Your task to perform on an android device: toggle notifications settings in the gmail app Image 0: 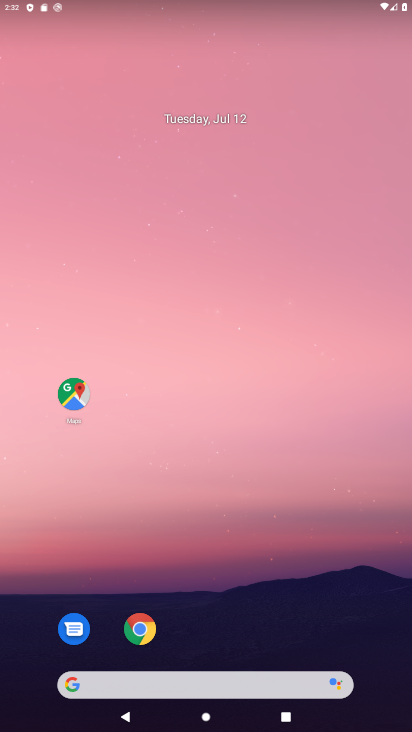
Step 0: drag from (237, 688) to (263, 105)
Your task to perform on an android device: toggle notifications settings in the gmail app Image 1: 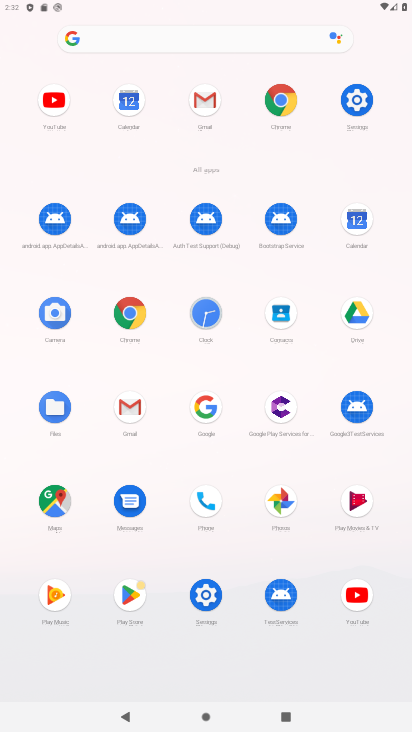
Step 1: click (204, 99)
Your task to perform on an android device: toggle notifications settings in the gmail app Image 2: 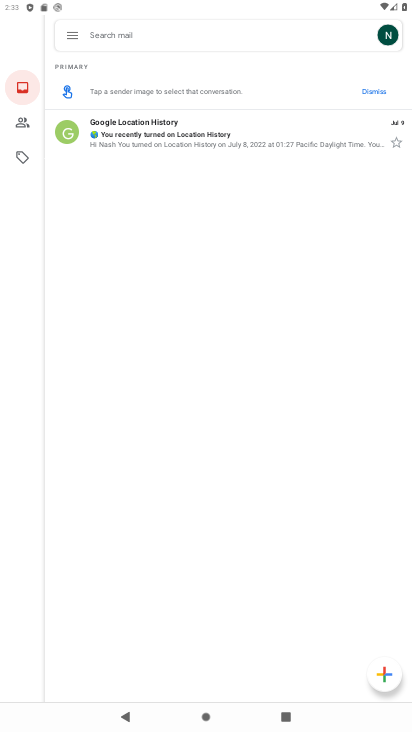
Step 2: click (71, 34)
Your task to perform on an android device: toggle notifications settings in the gmail app Image 3: 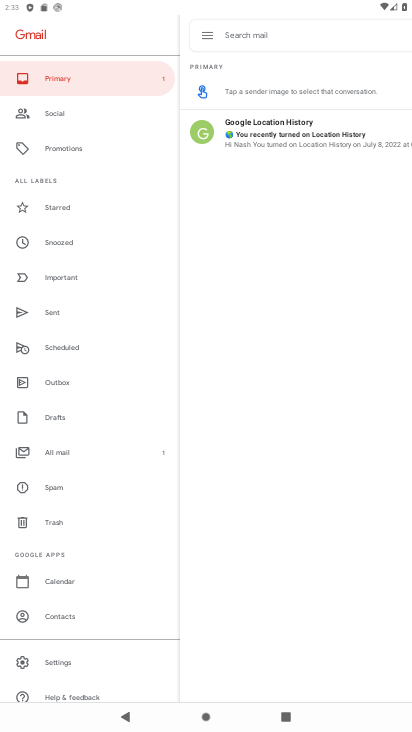
Step 3: drag from (61, 324) to (93, 229)
Your task to perform on an android device: toggle notifications settings in the gmail app Image 4: 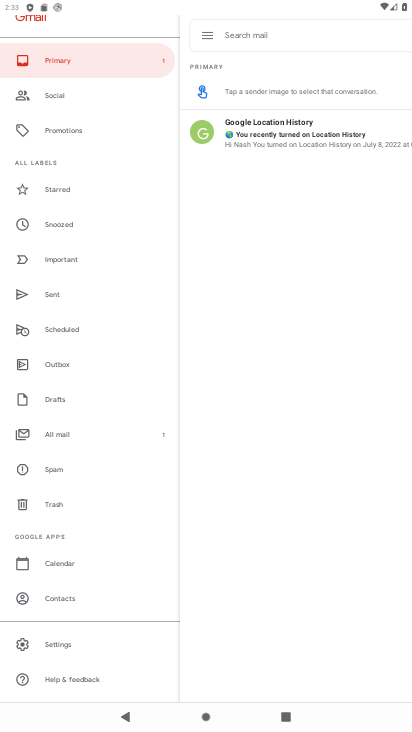
Step 4: click (62, 645)
Your task to perform on an android device: toggle notifications settings in the gmail app Image 5: 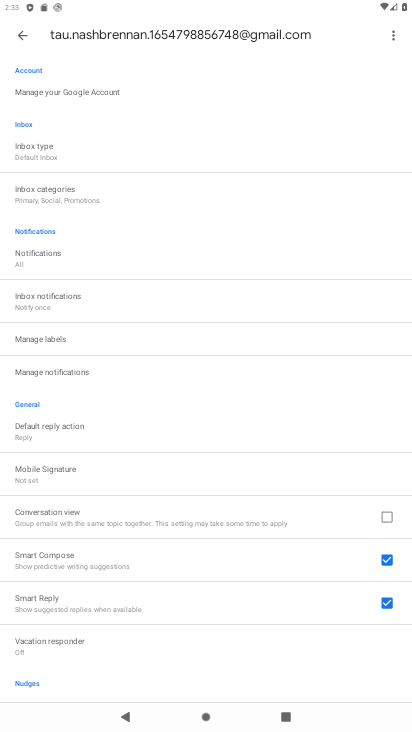
Step 5: click (74, 377)
Your task to perform on an android device: toggle notifications settings in the gmail app Image 6: 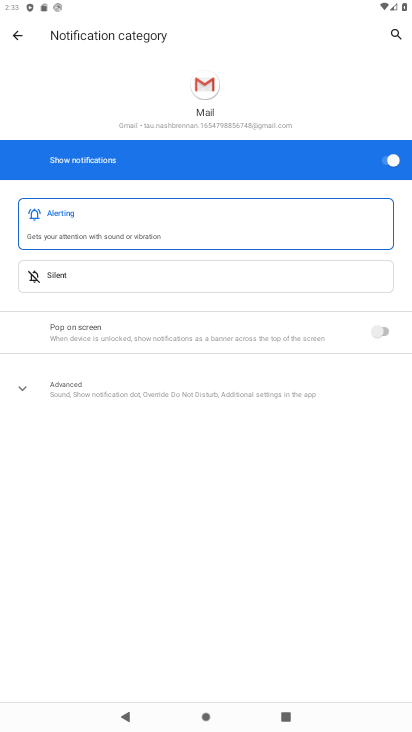
Step 6: click (396, 153)
Your task to perform on an android device: toggle notifications settings in the gmail app Image 7: 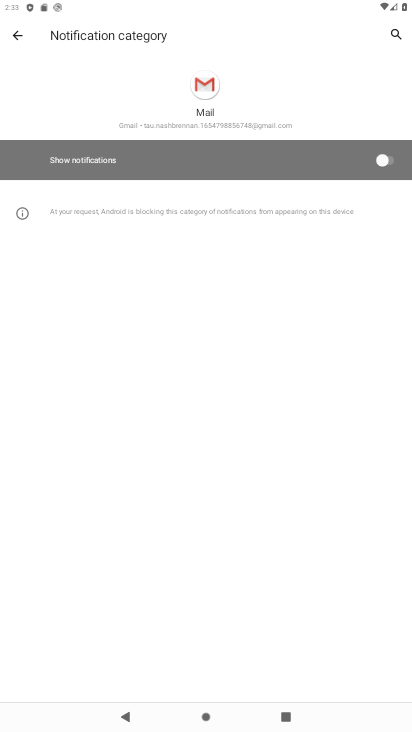
Step 7: task complete